Your task to perform on an android device: move an email to a new category in the gmail app Image 0: 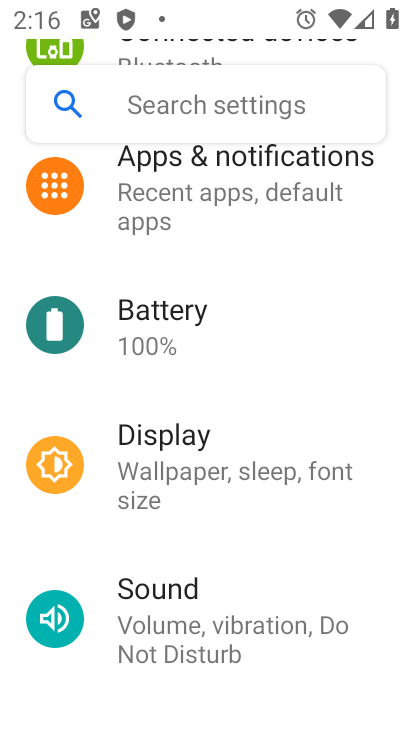
Step 0: press home button
Your task to perform on an android device: move an email to a new category in the gmail app Image 1: 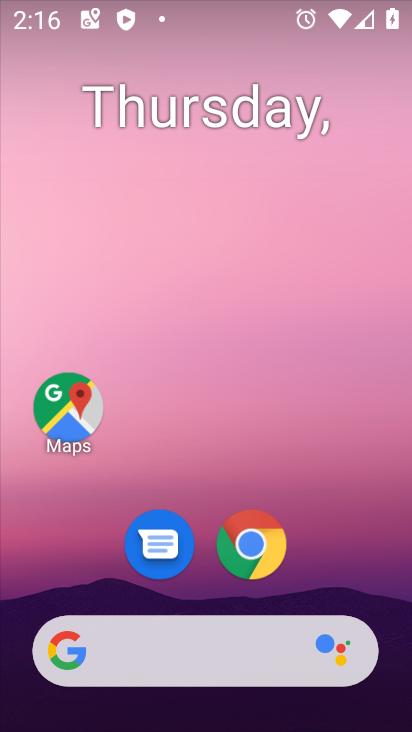
Step 1: drag from (349, 565) to (353, 247)
Your task to perform on an android device: move an email to a new category in the gmail app Image 2: 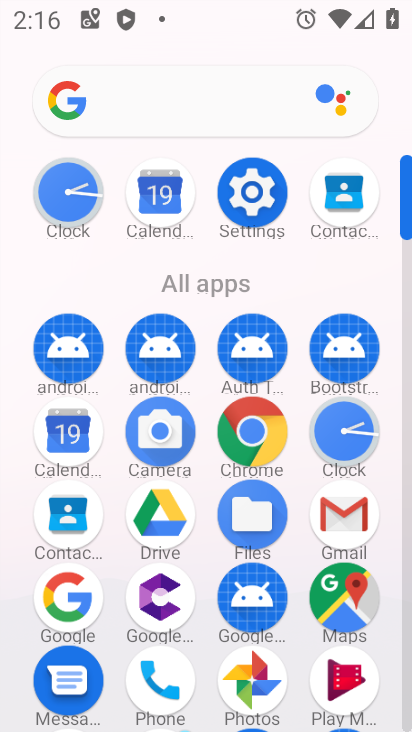
Step 2: click (367, 512)
Your task to perform on an android device: move an email to a new category in the gmail app Image 3: 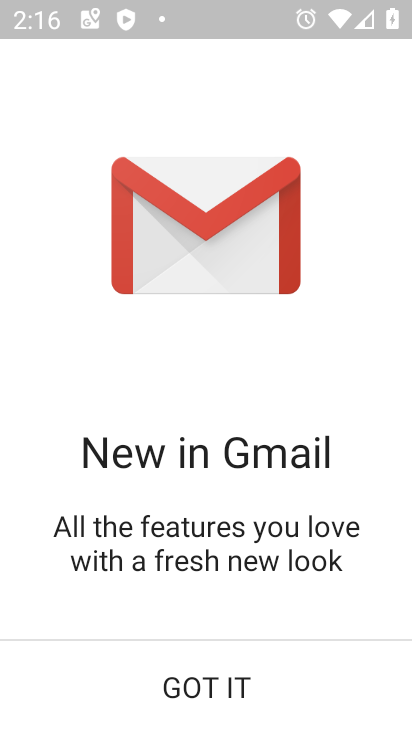
Step 3: click (219, 685)
Your task to perform on an android device: move an email to a new category in the gmail app Image 4: 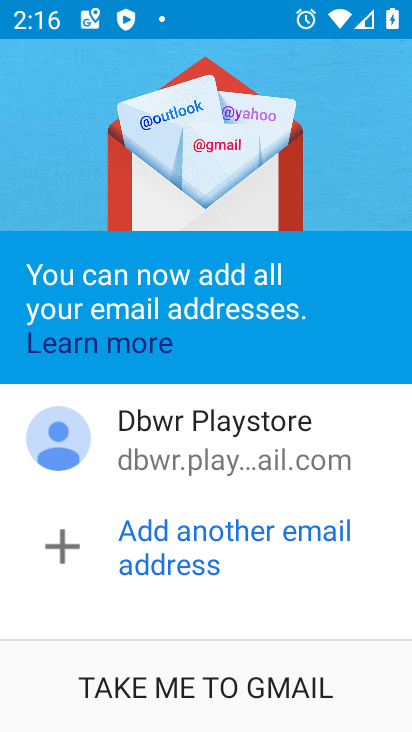
Step 4: click (245, 699)
Your task to perform on an android device: move an email to a new category in the gmail app Image 5: 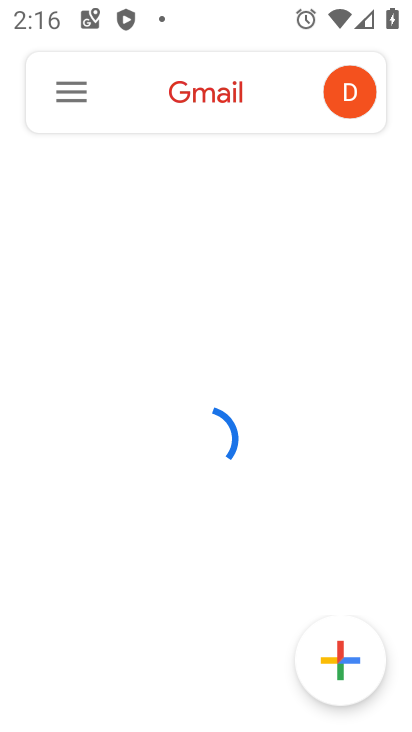
Step 5: click (67, 105)
Your task to perform on an android device: move an email to a new category in the gmail app Image 6: 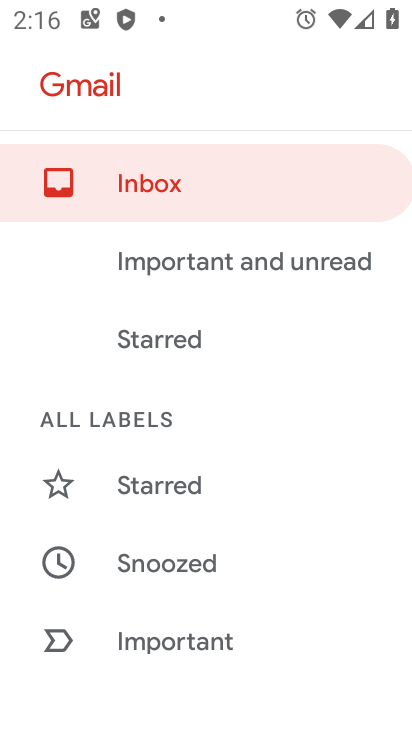
Step 6: drag from (208, 573) to (264, 245)
Your task to perform on an android device: move an email to a new category in the gmail app Image 7: 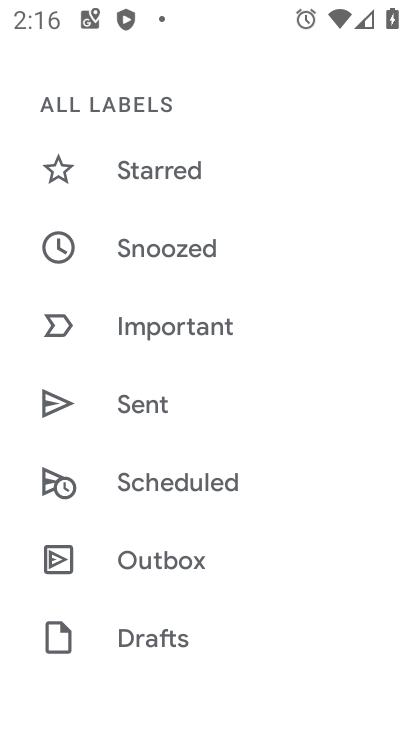
Step 7: drag from (218, 544) to (261, 215)
Your task to perform on an android device: move an email to a new category in the gmail app Image 8: 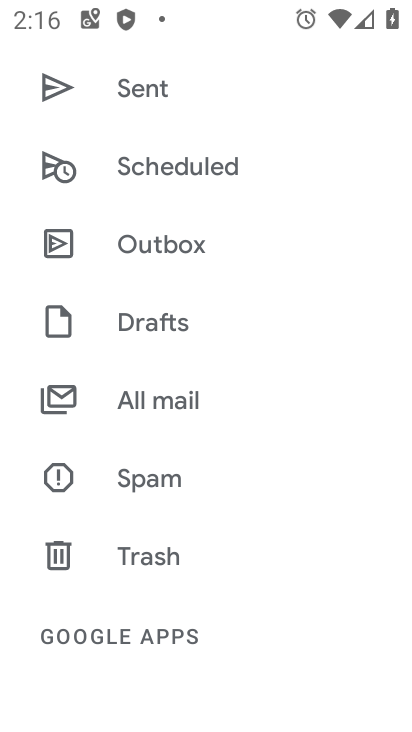
Step 8: click (214, 398)
Your task to perform on an android device: move an email to a new category in the gmail app Image 9: 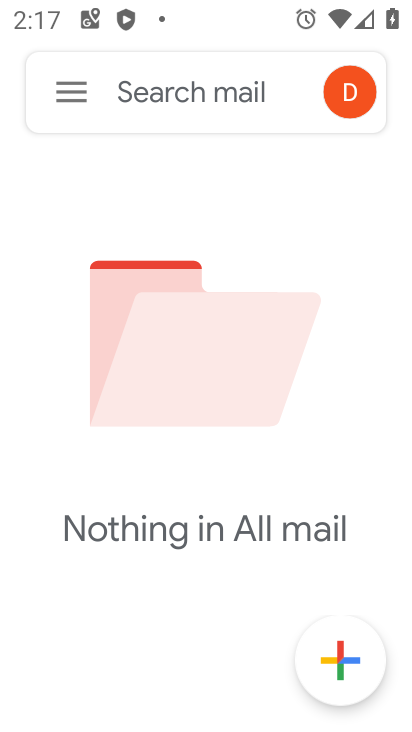
Step 9: task complete